Your task to perform on an android device: set default search engine in the chrome app Image 0: 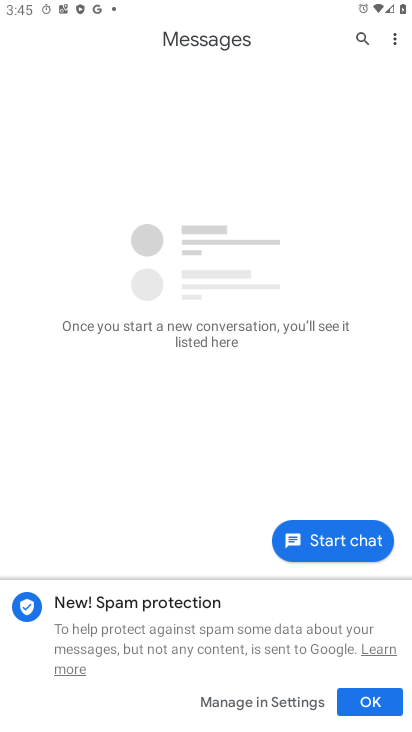
Step 0: press home button
Your task to perform on an android device: set default search engine in the chrome app Image 1: 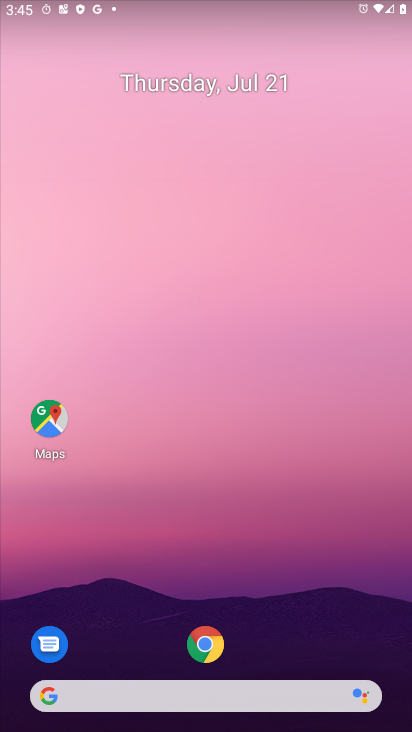
Step 1: click (210, 646)
Your task to perform on an android device: set default search engine in the chrome app Image 2: 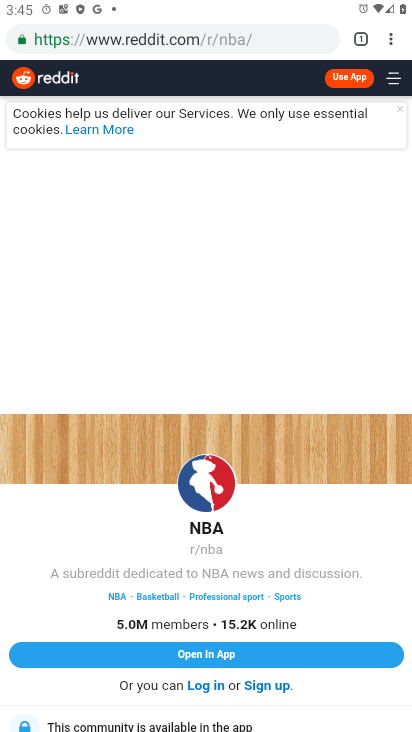
Step 2: drag from (394, 32) to (282, 506)
Your task to perform on an android device: set default search engine in the chrome app Image 3: 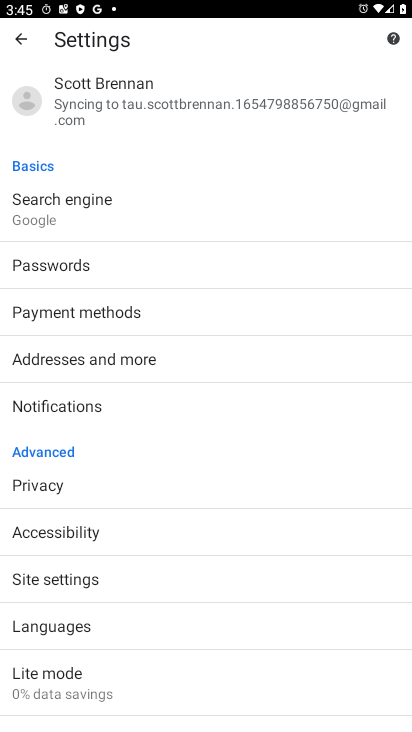
Step 3: click (40, 216)
Your task to perform on an android device: set default search engine in the chrome app Image 4: 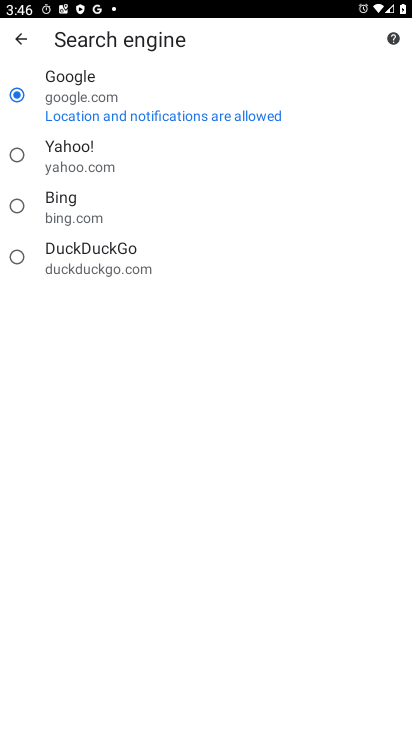
Step 4: task complete